Your task to perform on an android device: show emergency info Image 0: 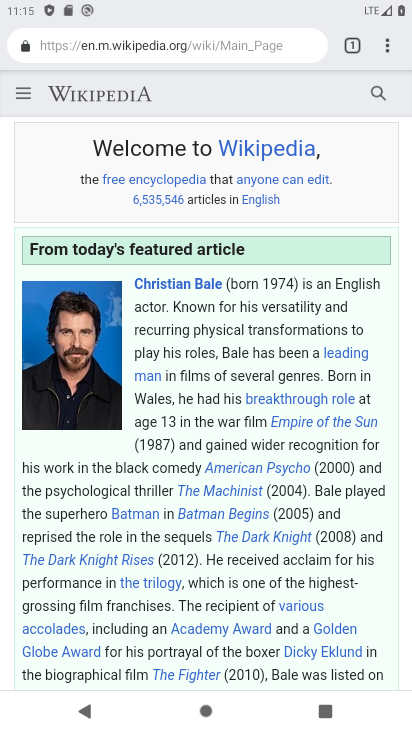
Step 0: press home button
Your task to perform on an android device: show emergency info Image 1: 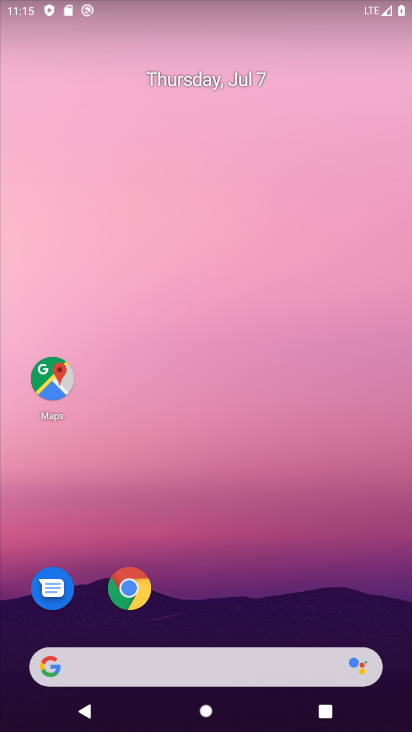
Step 1: drag from (277, 559) to (276, 216)
Your task to perform on an android device: show emergency info Image 2: 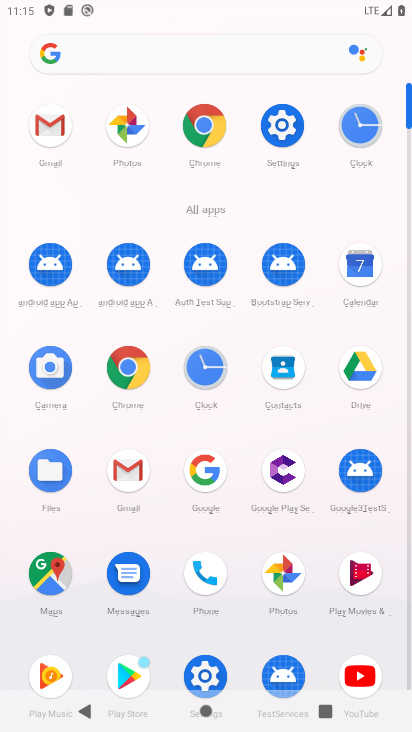
Step 2: click (277, 138)
Your task to perform on an android device: show emergency info Image 3: 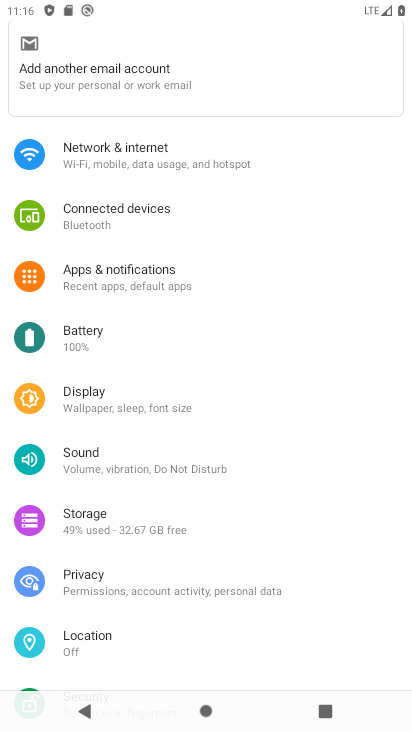
Step 3: drag from (188, 517) to (151, 68)
Your task to perform on an android device: show emergency info Image 4: 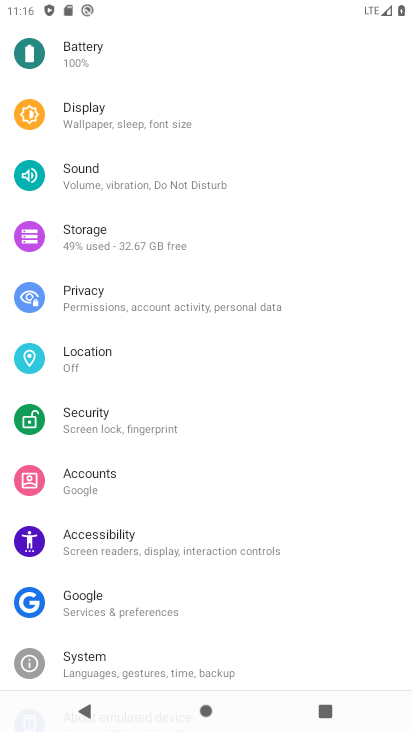
Step 4: drag from (161, 668) to (143, 428)
Your task to perform on an android device: show emergency info Image 5: 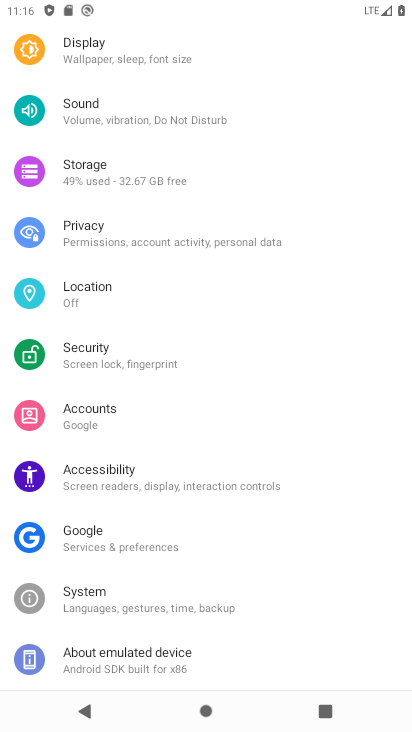
Step 5: click (129, 646)
Your task to perform on an android device: show emergency info Image 6: 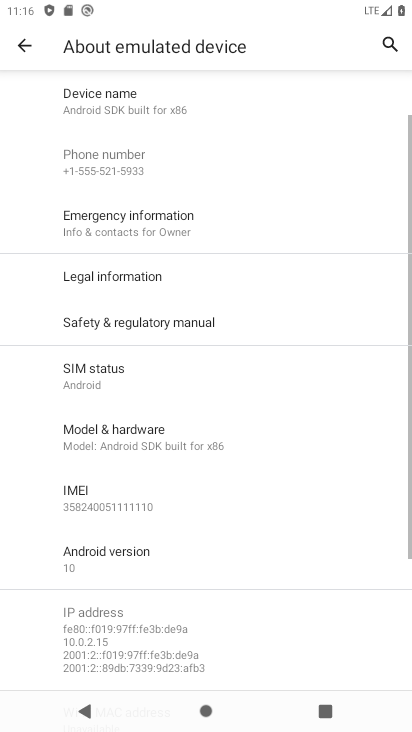
Step 6: click (162, 231)
Your task to perform on an android device: show emergency info Image 7: 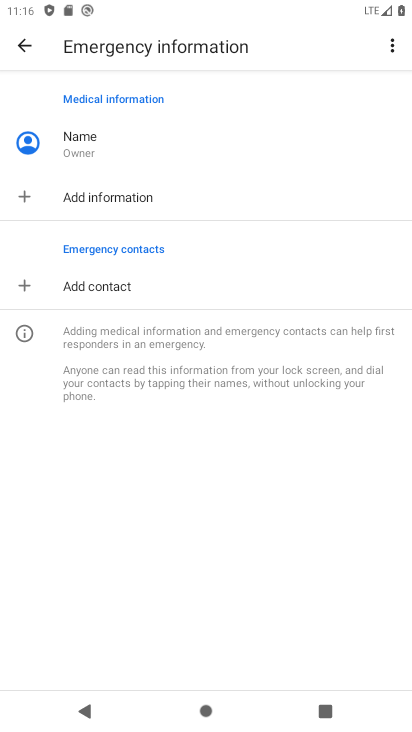
Step 7: task complete